Your task to perform on an android device: open a bookmark in the chrome app Image 0: 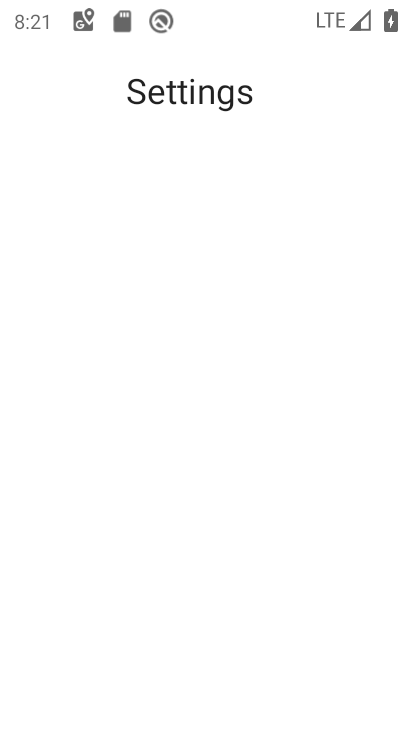
Step 0: drag from (208, 584) to (282, 97)
Your task to perform on an android device: open a bookmark in the chrome app Image 1: 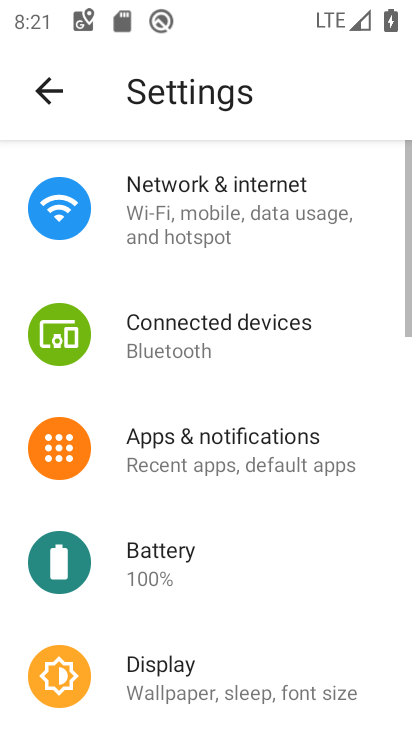
Step 1: drag from (205, 414) to (227, 250)
Your task to perform on an android device: open a bookmark in the chrome app Image 2: 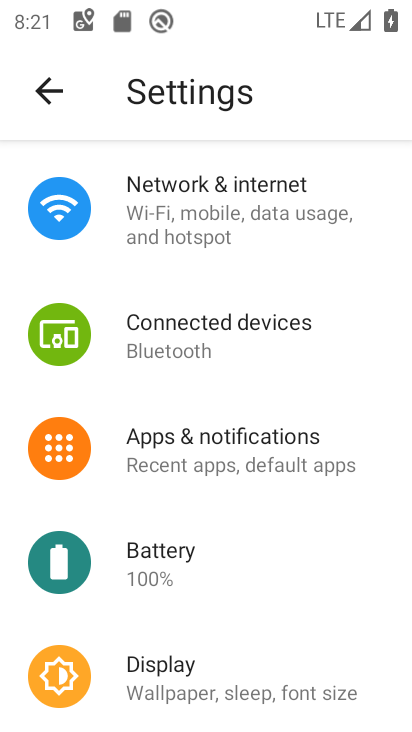
Step 2: press home button
Your task to perform on an android device: open a bookmark in the chrome app Image 3: 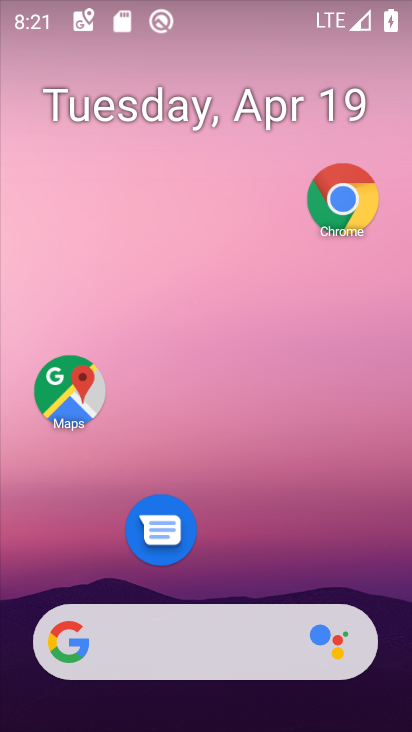
Step 3: drag from (220, 562) to (161, 0)
Your task to perform on an android device: open a bookmark in the chrome app Image 4: 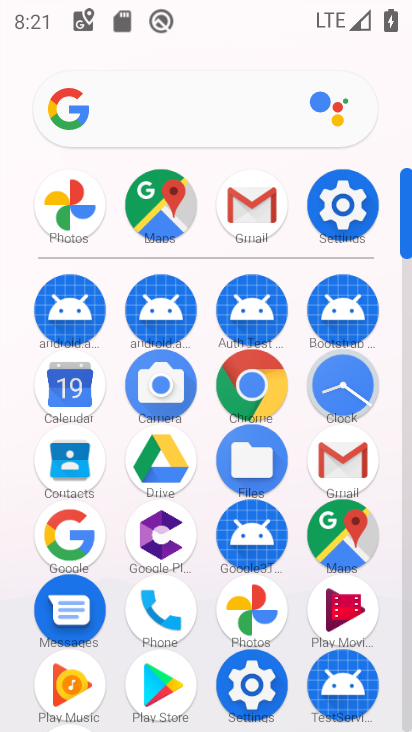
Step 4: click (251, 372)
Your task to perform on an android device: open a bookmark in the chrome app Image 5: 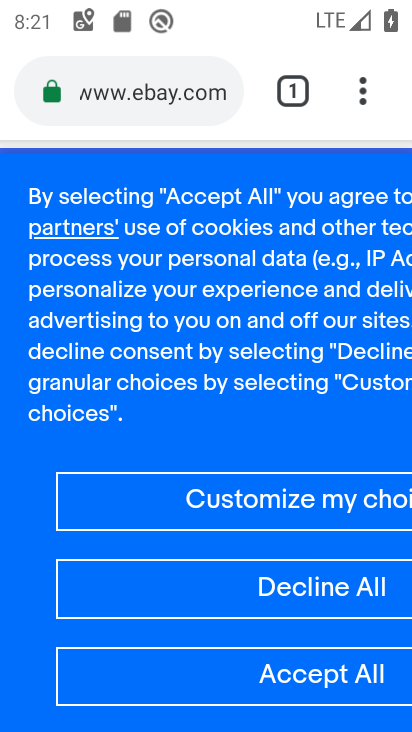
Step 5: click (369, 99)
Your task to perform on an android device: open a bookmark in the chrome app Image 6: 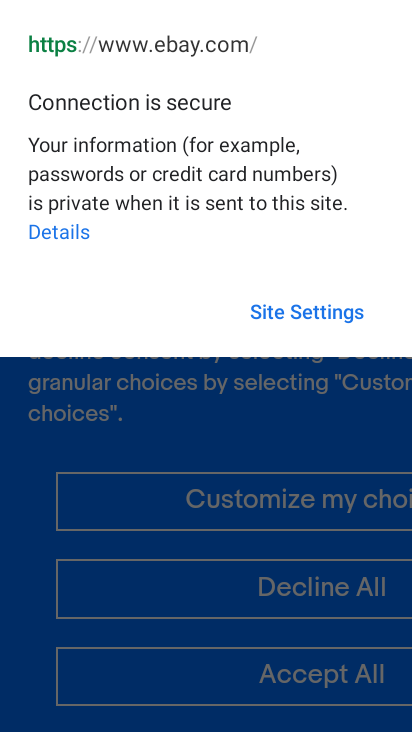
Step 6: click (209, 433)
Your task to perform on an android device: open a bookmark in the chrome app Image 7: 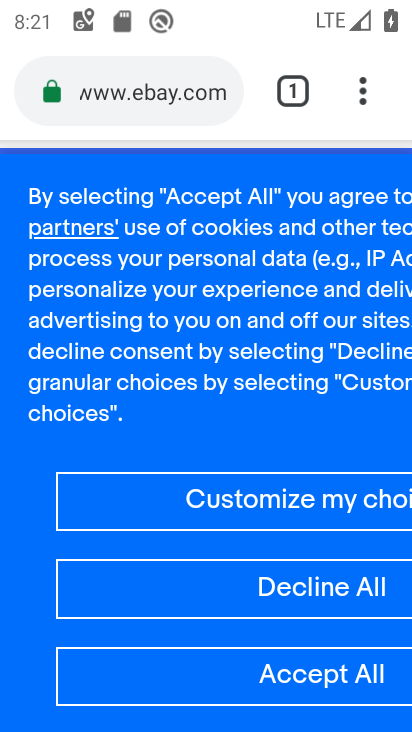
Step 7: task complete